Your task to perform on an android device: see creations saved in the google photos Image 0: 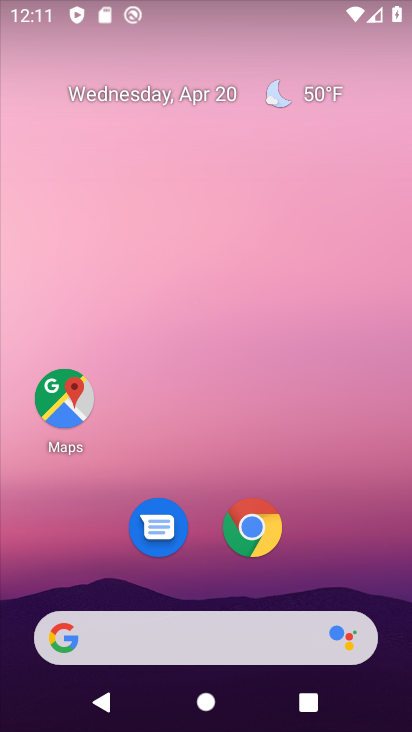
Step 0: drag from (398, 569) to (240, 5)
Your task to perform on an android device: see creations saved in the google photos Image 1: 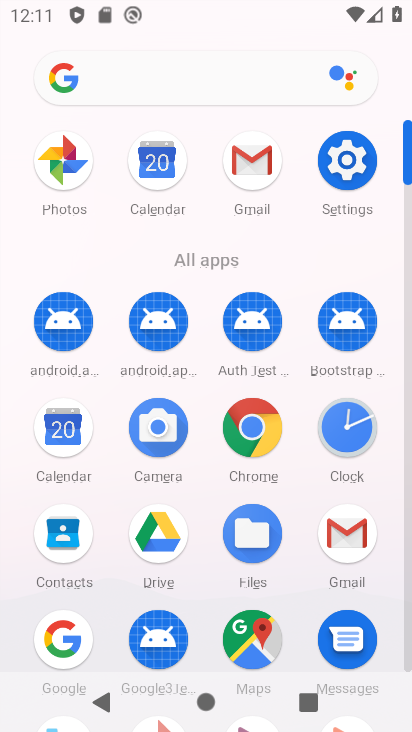
Step 1: click (58, 163)
Your task to perform on an android device: see creations saved in the google photos Image 2: 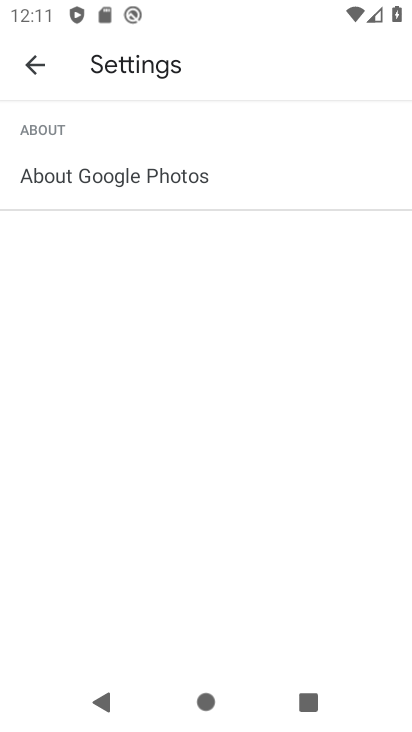
Step 2: click (33, 72)
Your task to perform on an android device: see creations saved in the google photos Image 3: 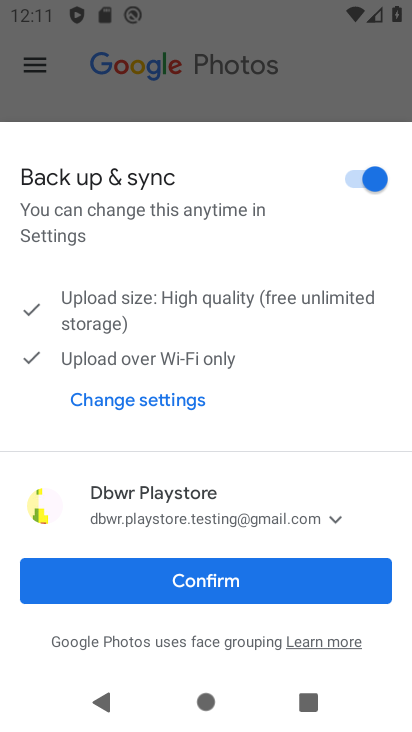
Step 3: click (174, 587)
Your task to perform on an android device: see creations saved in the google photos Image 4: 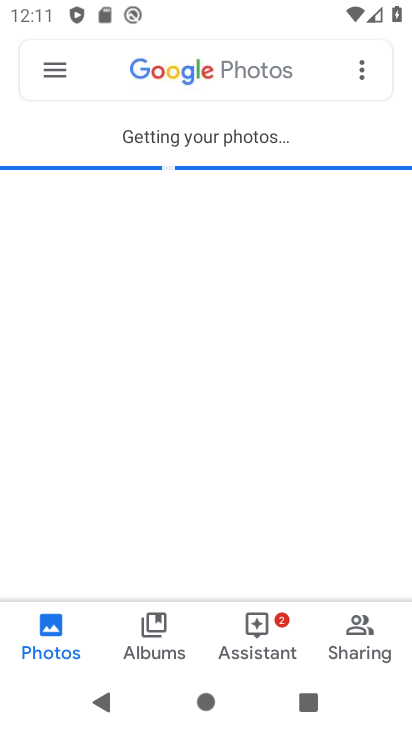
Step 4: click (146, 73)
Your task to perform on an android device: see creations saved in the google photos Image 5: 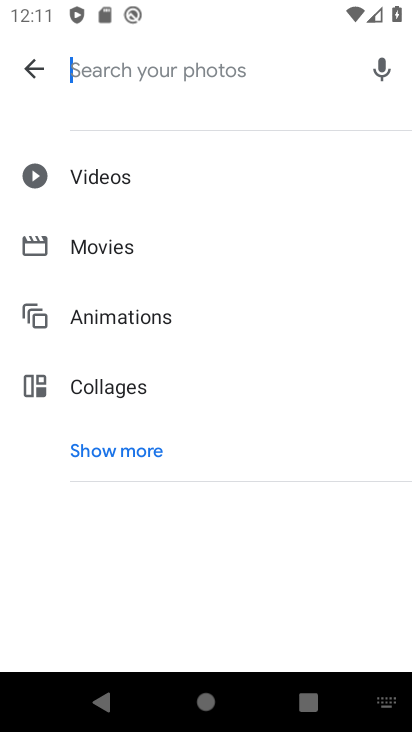
Step 5: click (111, 449)
Your task to perform on an android device: see creations saved in the google photos Image 6: 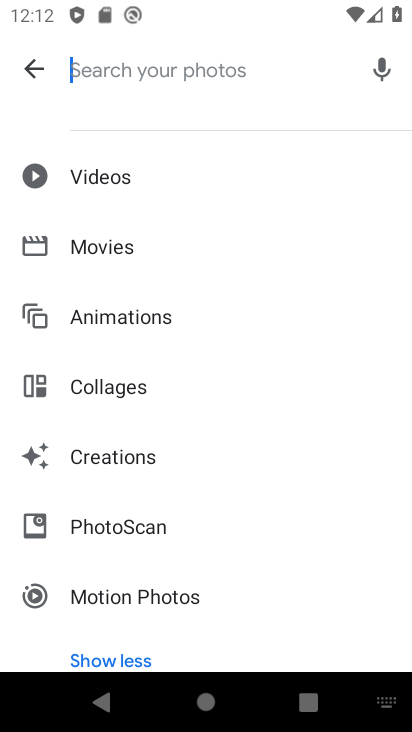
Step 6: click (112, 463)
Your task to perform on an android device: see creations saved in the google photos Image 7: 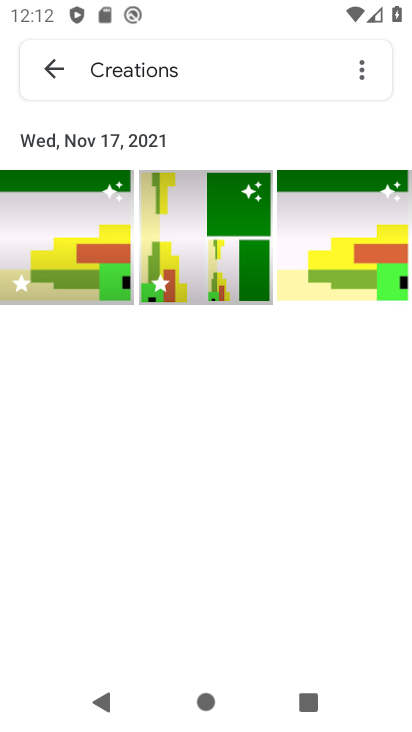
Step 7: task complete